Your task to perform on an android device: turn on priority inbox in the gmail app Image 0: 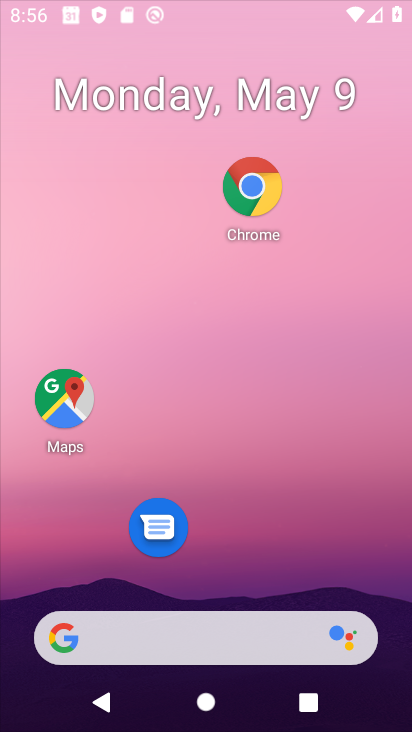
Step 0: drag from (217, 588) to (236, 71)
Your task to perform on an android device: turn on priority inbox in the gmail app Image 1: 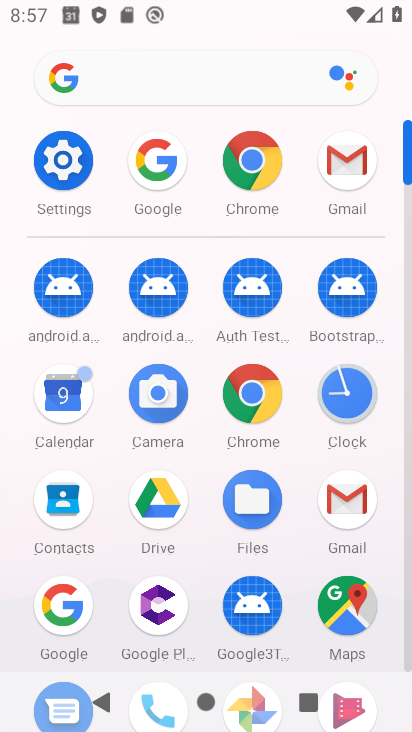
Step 1: click (347, 490)
Your task to perform on an android device: turn on priority inbox in the gmail app Image 2: 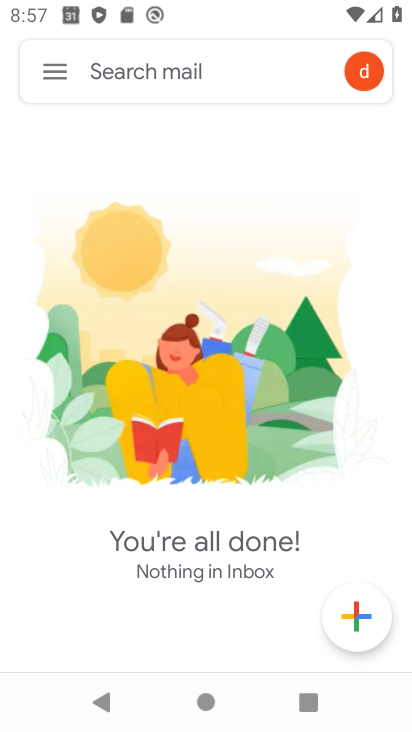
Step 2: click (55, 63)
Your task to perform on an android device: turn on priority inbox in the gmail app Image 3: 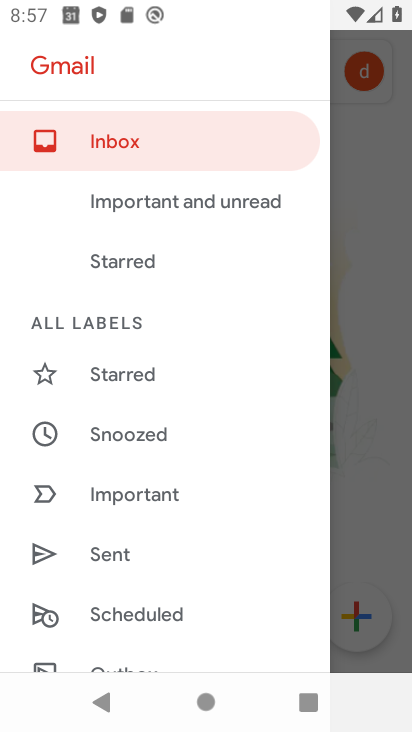
Step 3: drag from (115, 601) to (128, 119)
Your task to perform on an android device: turn on priority inbox in the gmail app Image 4: 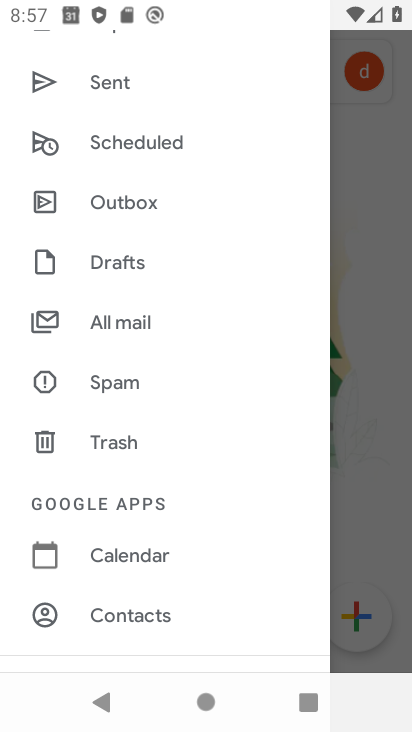
Step 4: drag from (144, 605) to (175, 113)
Your task to perform on an android device: turn on priority inbox in the gmail app Image 5: 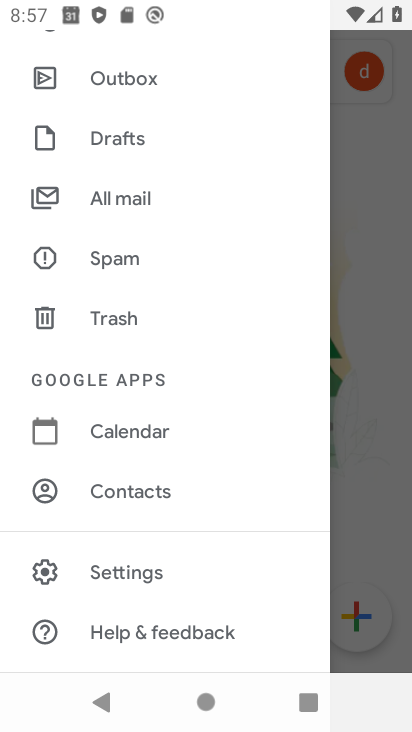
Step 5: click (161, 566)
Your task to perform on an android device: turn on priority inbox in the gmail app Image 6: 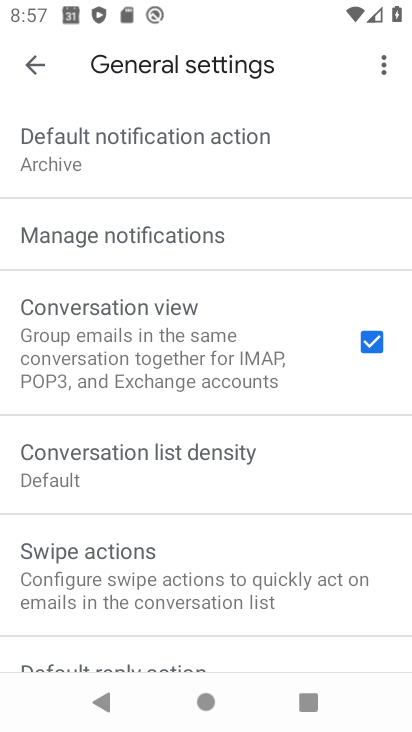
Step 6: click (36, 66)
Your task to perform on an android device: turn on priority inbox in the gmail app Image 7: 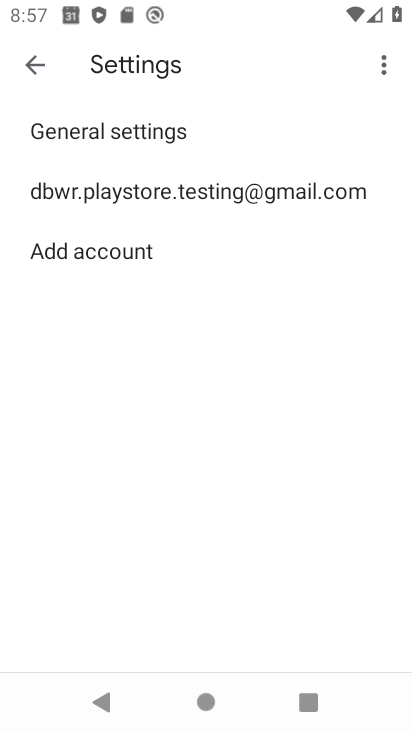
Step 7: click (173, 187)
Your task to perform on an android device: turn on priority inbox in the gmail app Image 8: 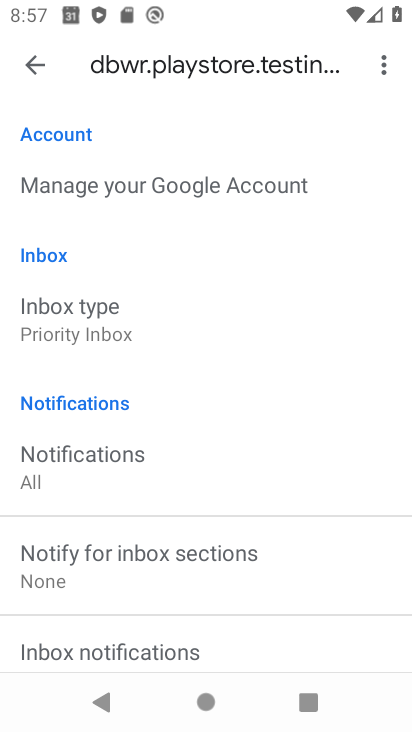
Step 8: click (136, 314)
Your task to perform on an android device: turn on priority inbox in the gmail app Image 9: 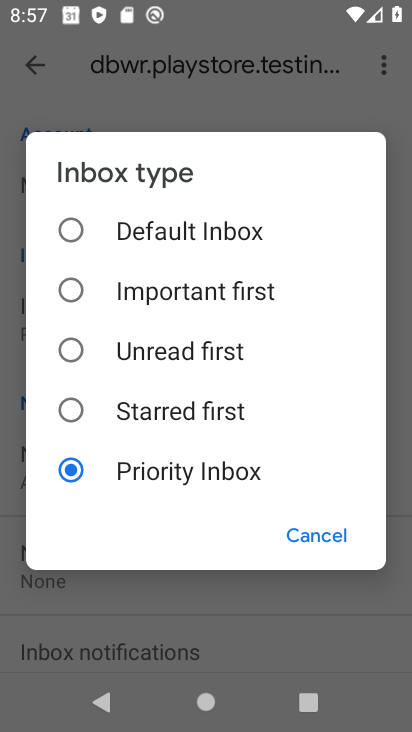
Step 9: click (85, 462)
Your task to perform on an android device: turn on priority inbox in the gmail app Image 10: 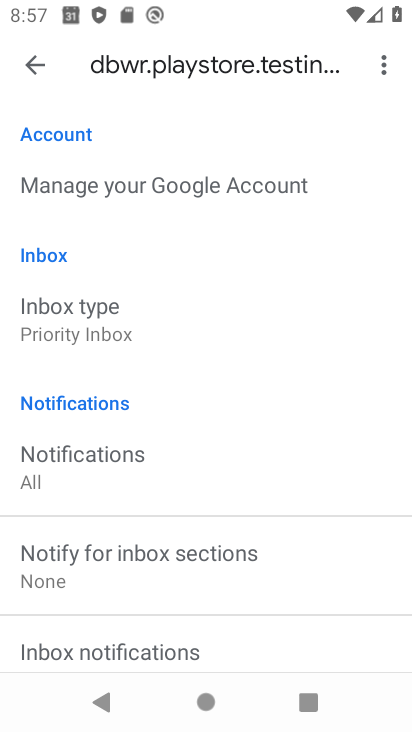
Step 10: task complete